Your task to perform on an android device: uninstall "Viber Messenger" Image 0: 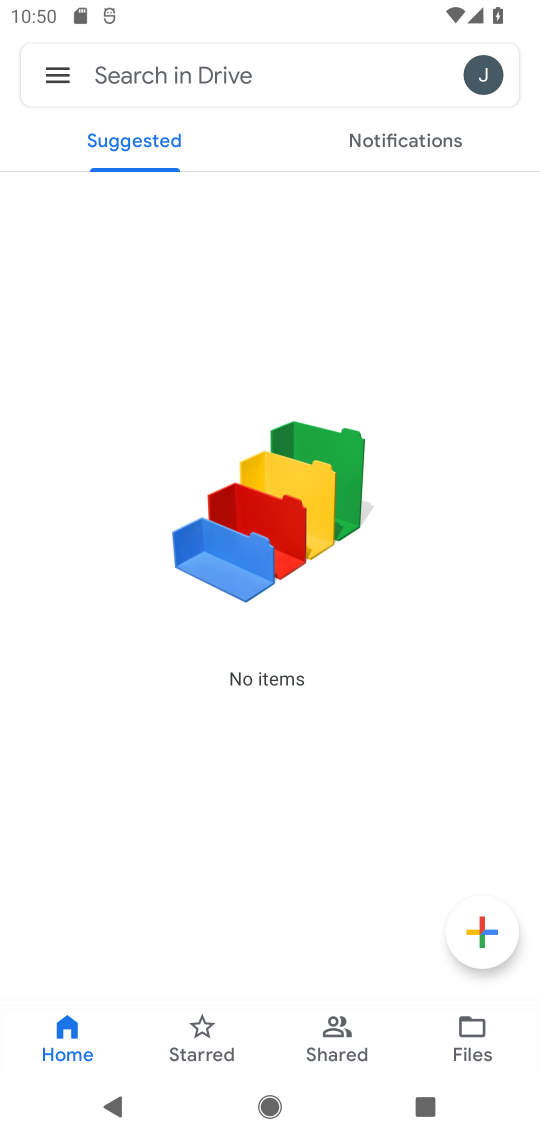
Step 0: press home button
Your task to perform on an android device: uninstall "Viber Messenger" Image 1: 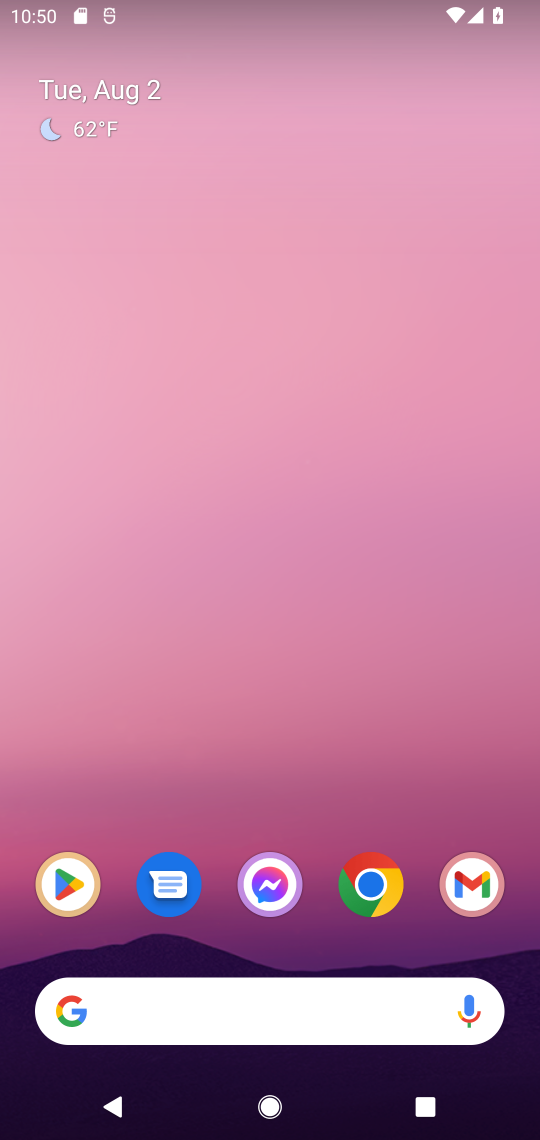
Step 1: click (66, 895)
Your task to perform on an android device: uninstall "Viber Messenger" Image 2: 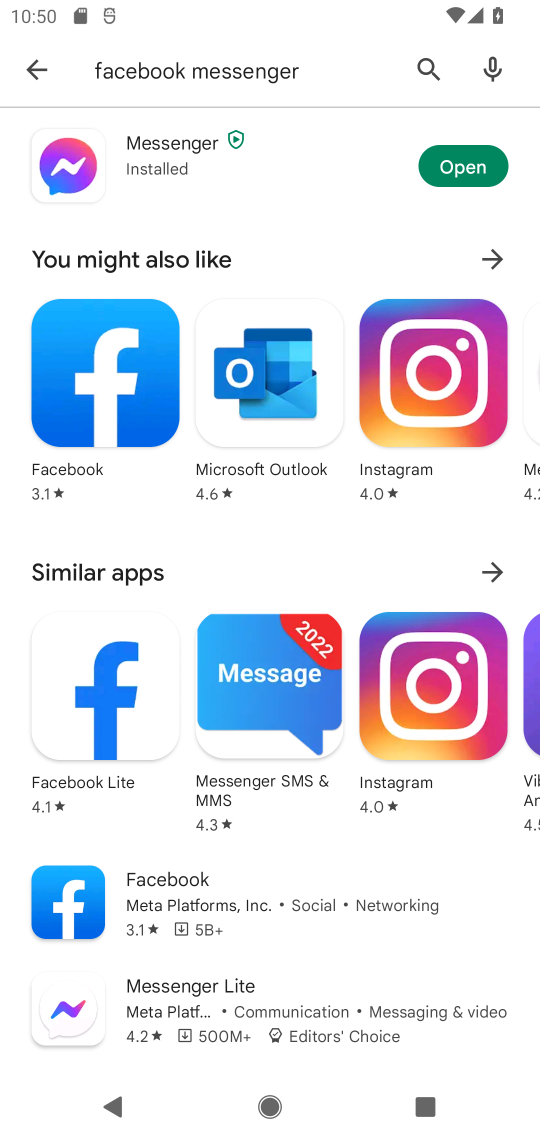
Step 2: click (233, 59)
Your task to perform on an android device: uninstall "Viber Messenger" Image 3: 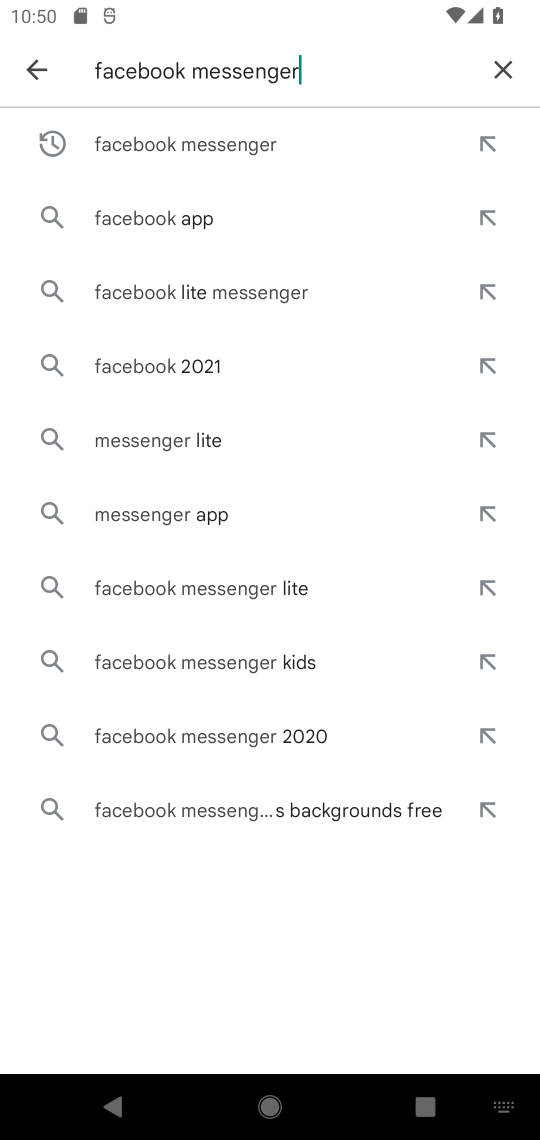
Step 3: click (511, 70)
Your task to perform on an android device: uninstall "Viber Messenger" Image 4: 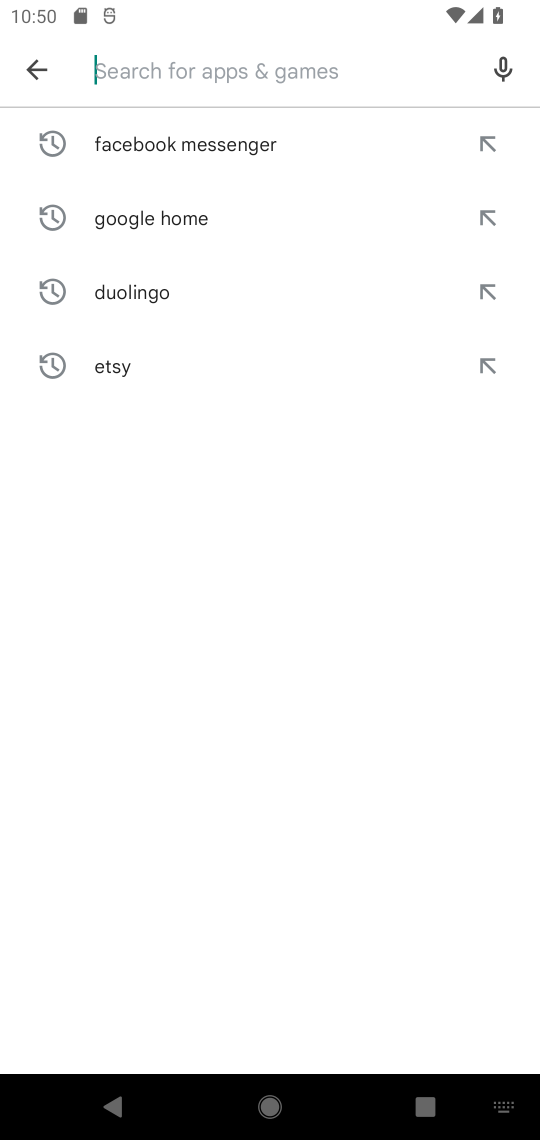
Step 4: type "Viber Messenger"
Your task to perform on an android device: uninstall "Viber Messenger" Image 5: 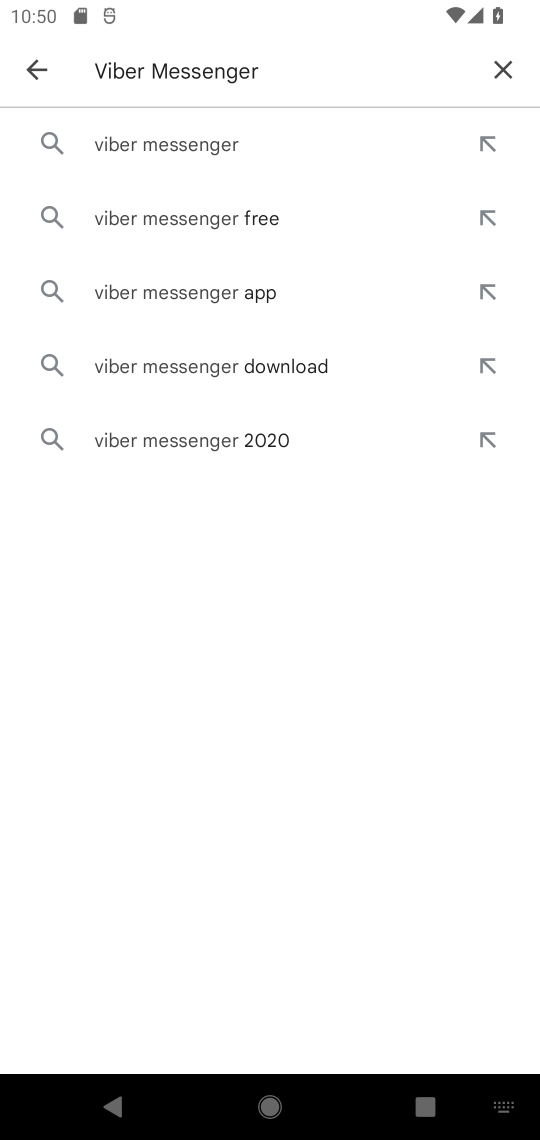
Step 5: click (212, 144)
Your task to perform on an android device: uninstall "Viber Messenger" Image 6: 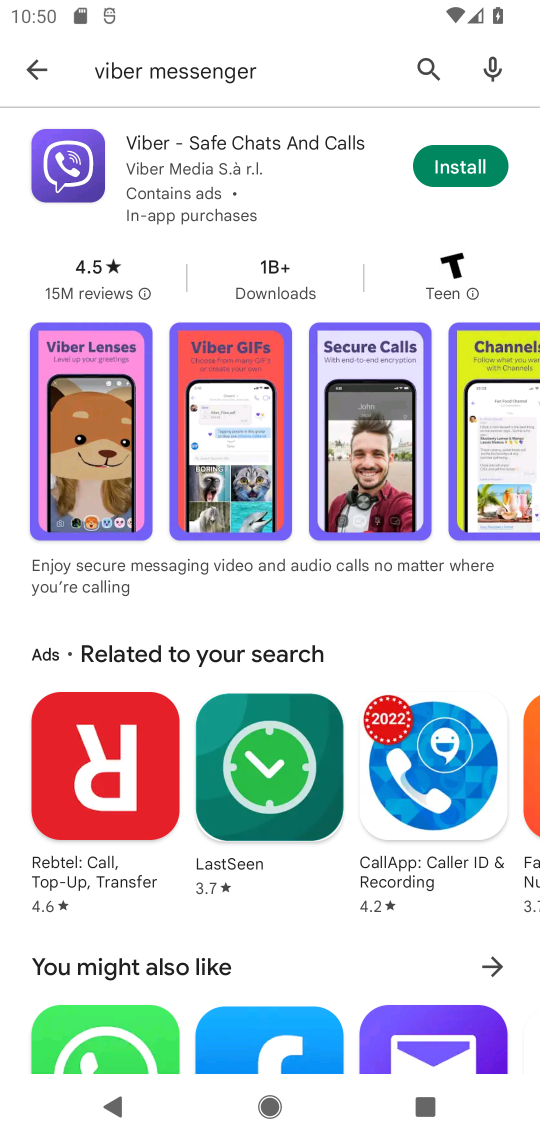
Step 6: task complete